Your task to perform on an android device: clear all cookies in the chrome app Image 0: 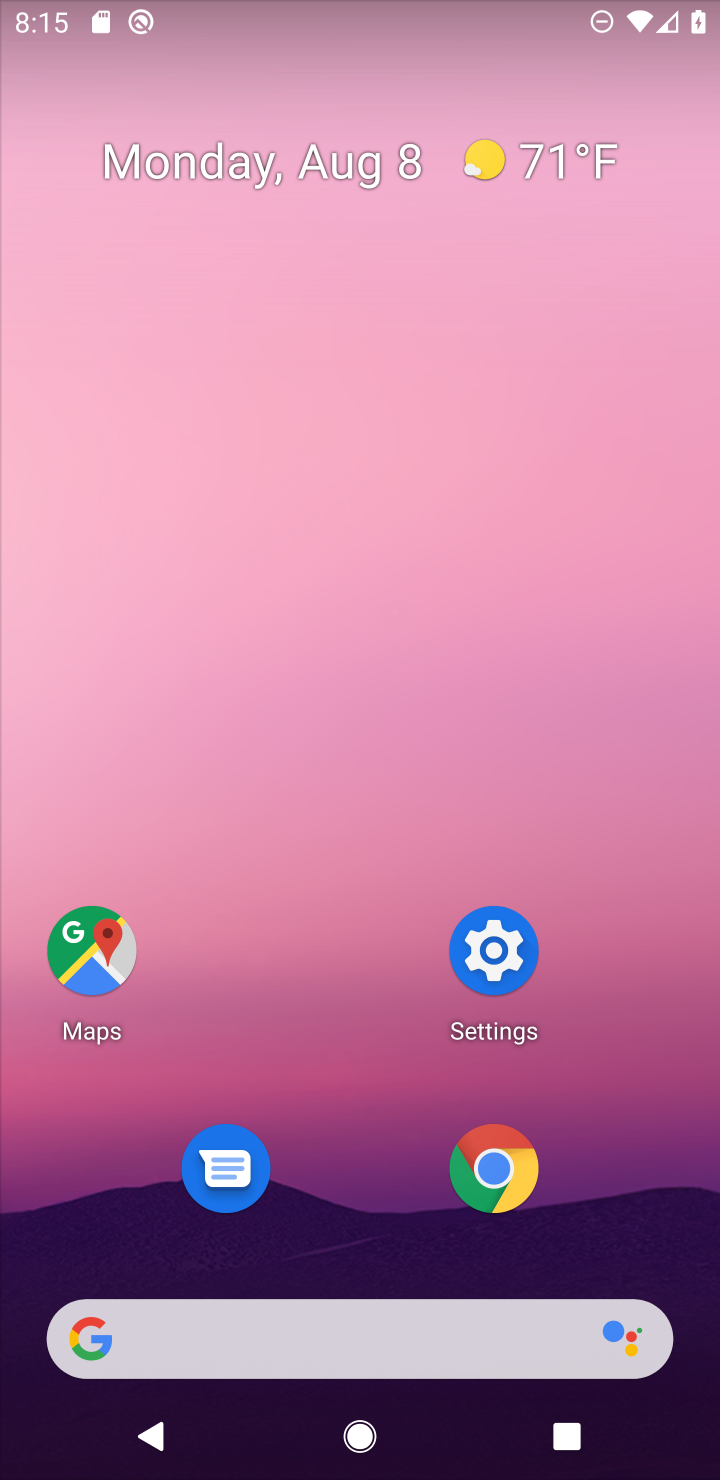
Step 0: press home button
Your task to perform on an android device: clear all cookies in the chrome app Image 1: 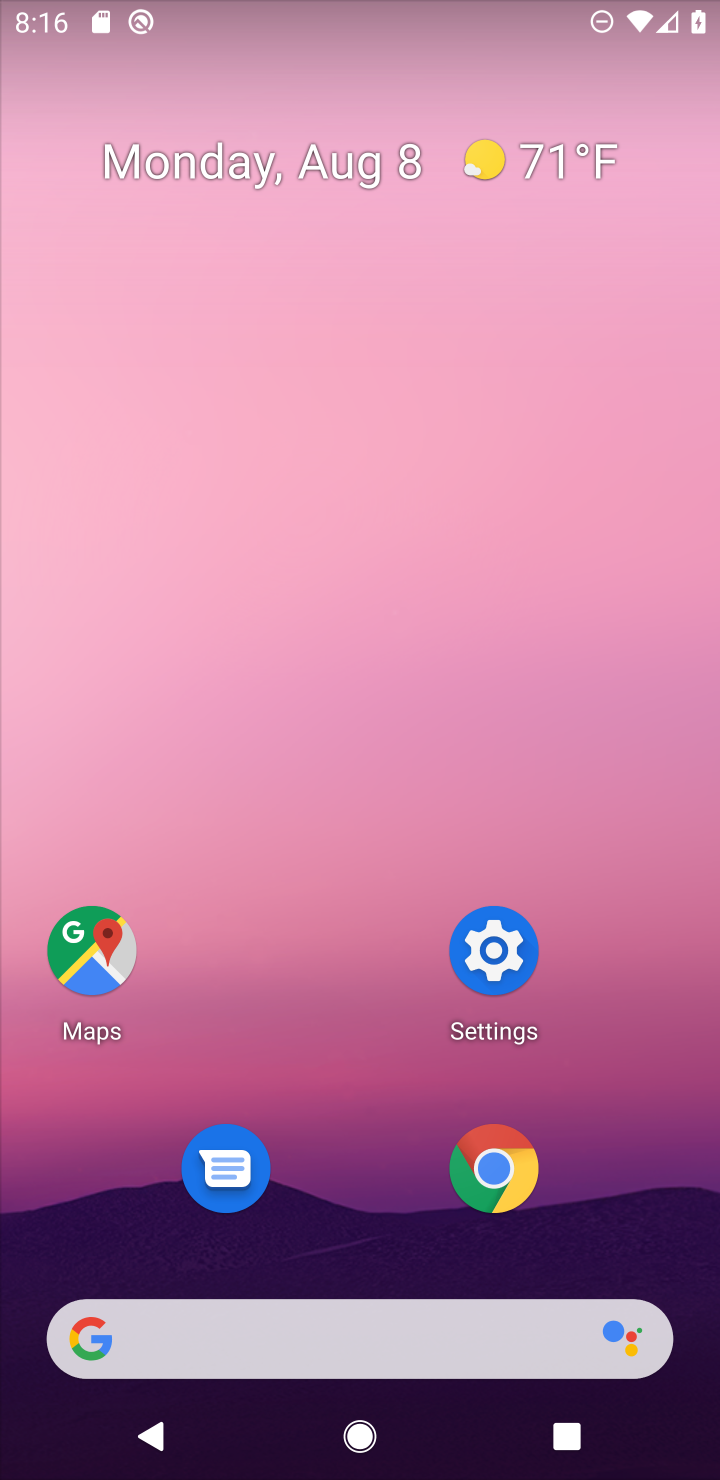
Step 1: click (494, 1193)
Your task to perform on an android device: clear all cookies in the chrome app Image 2: 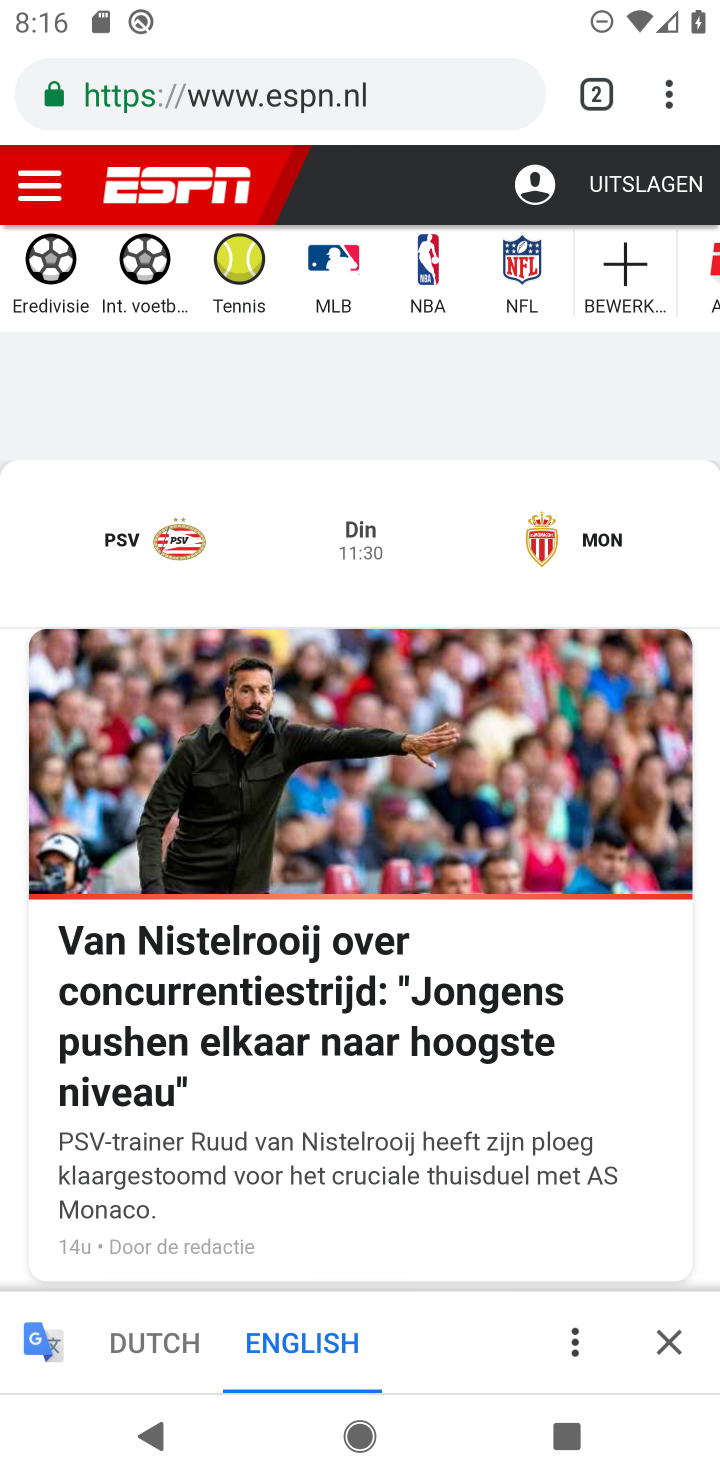
Step 2: drag from (665, 92) to (404, 1055)
Your task to perform on an android device: clear all cookies in the chrome app Image 3: 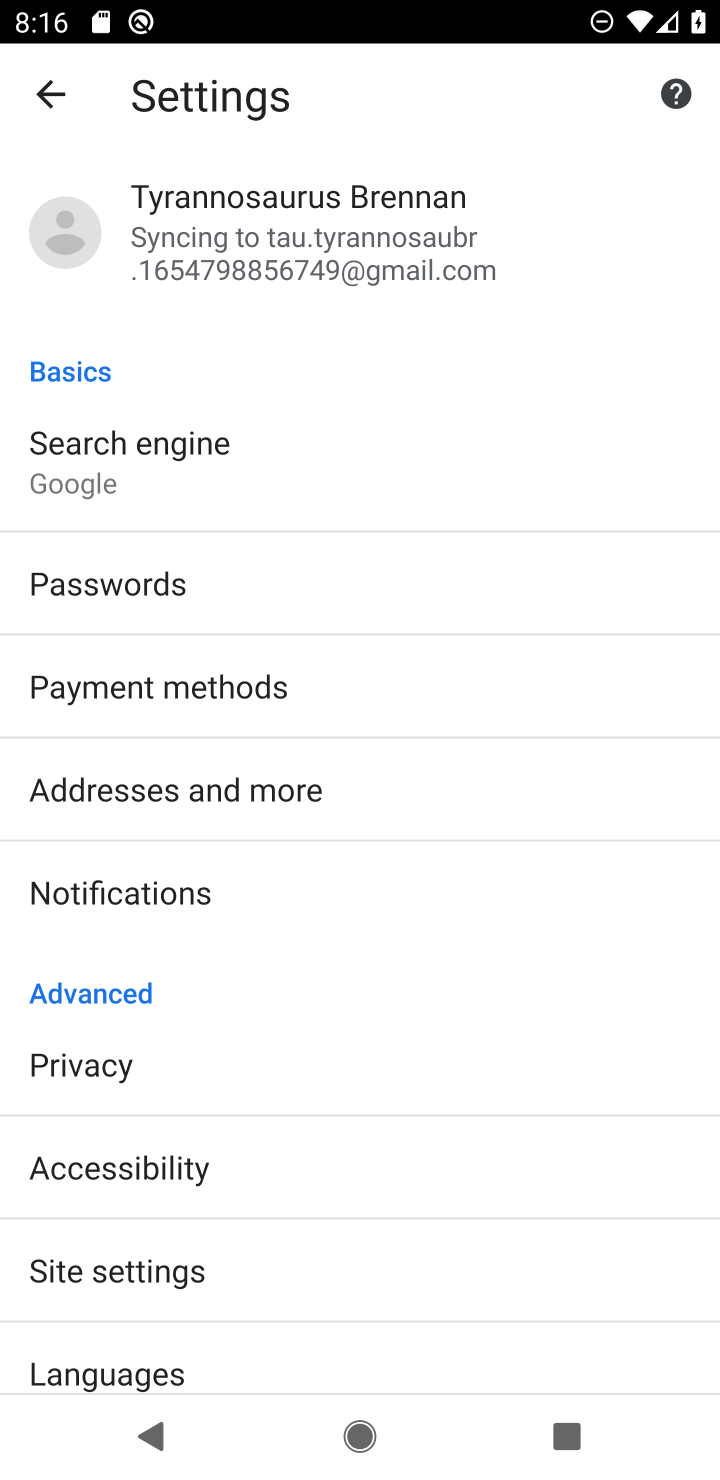
Step 3: click (79, 1049)
Your task to perform on an android device: clear all cookies in the chrome app Image 4: 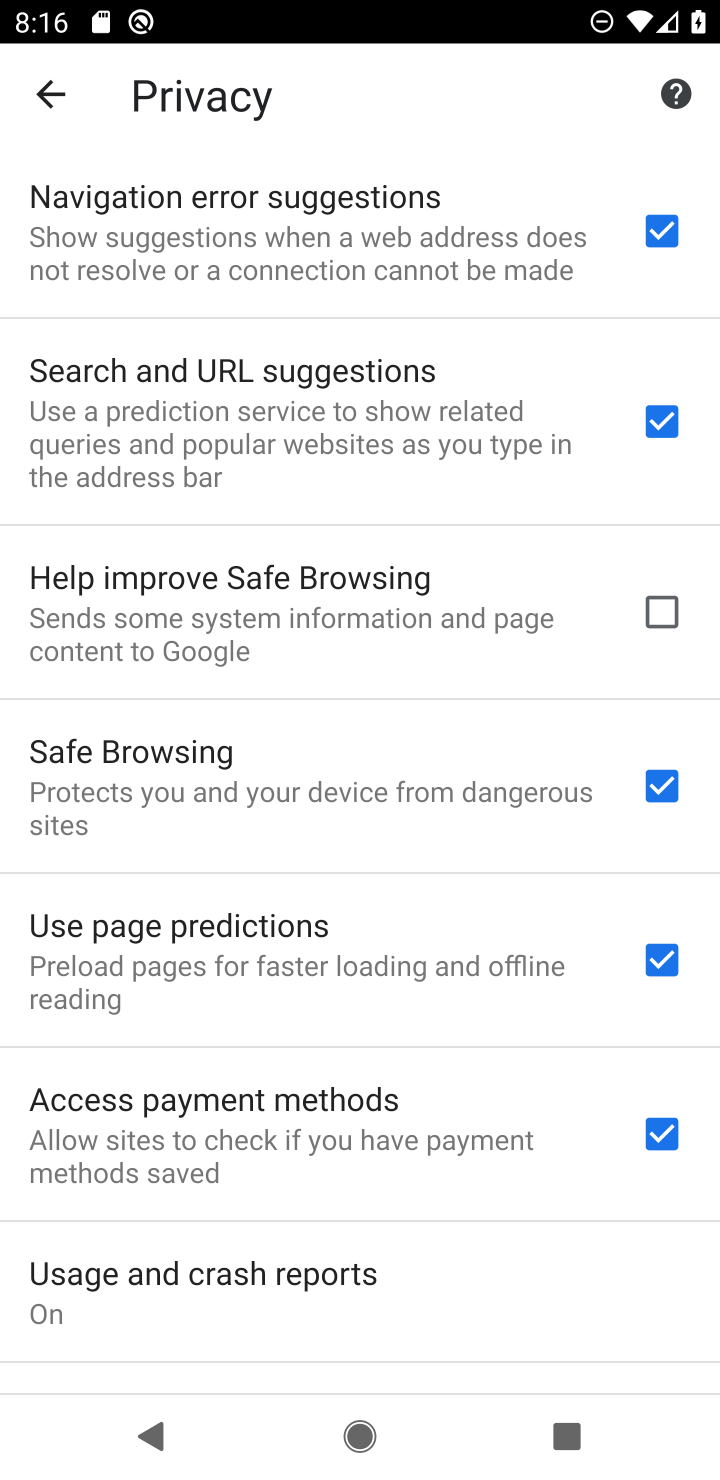
Step 4: drag from (262, 1289) to (551, 320)
Your task to perform on an android device: clear all cookies in the chrome app Image 5: 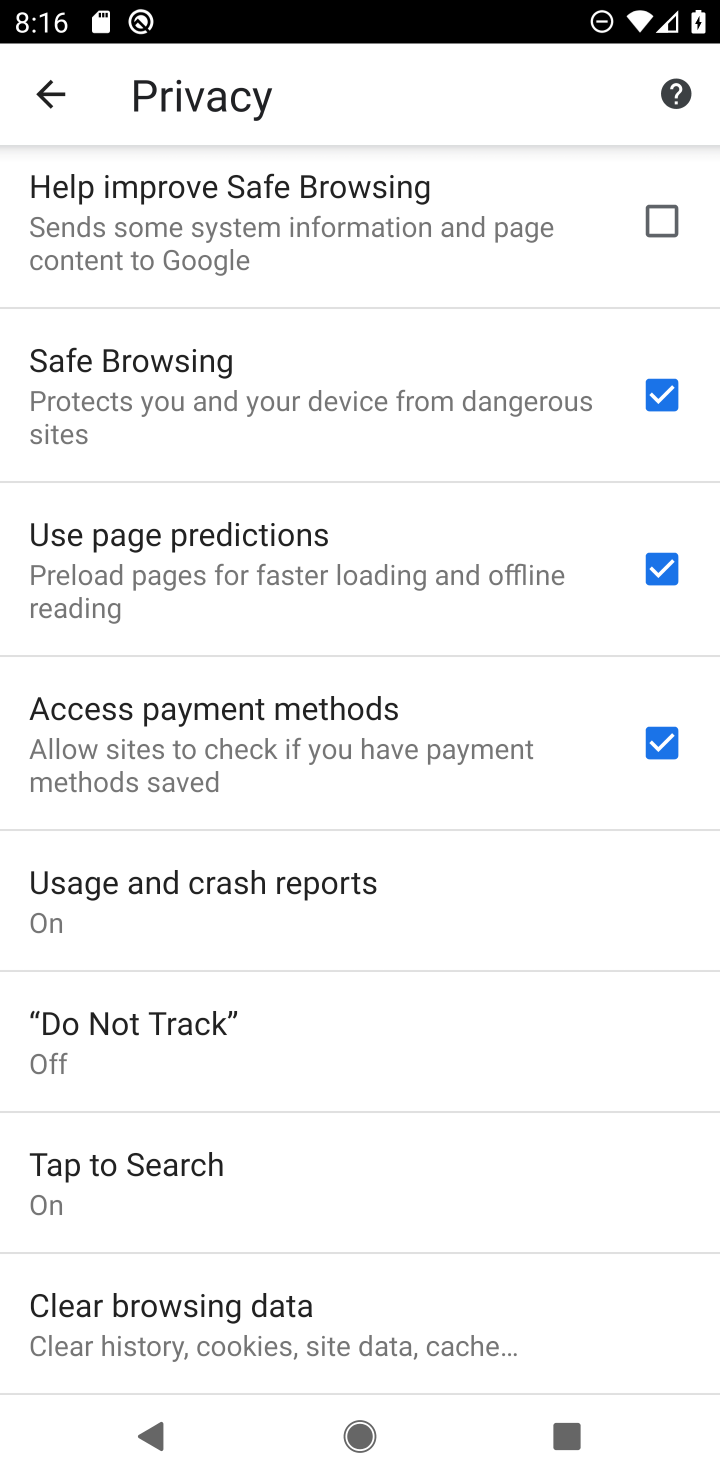
Step 5: click (271, 1308)
Your task to perform on an android device: clear all cookies in the chrome app Image 6: 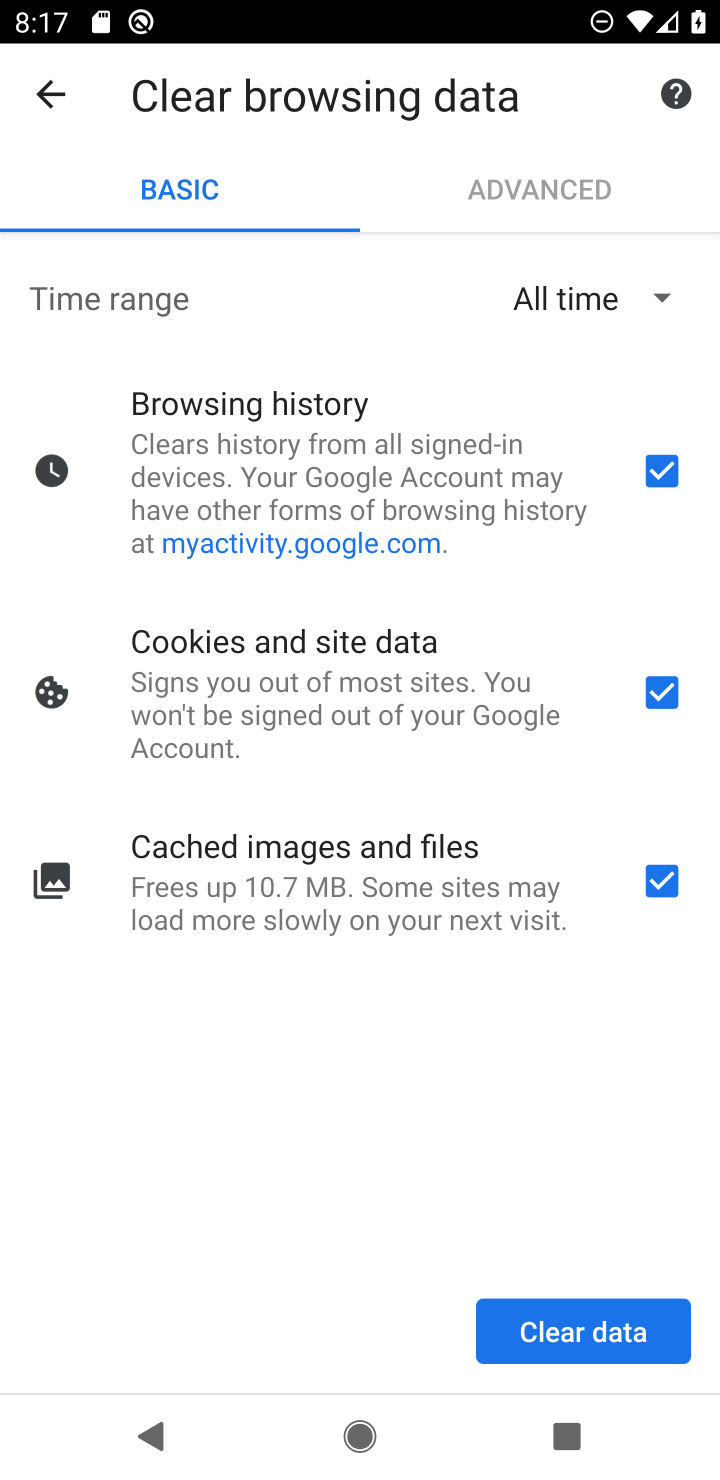
Step 6: click (654, 461)
Your task to perform on an android device: clear all cookies in the chrome app Image 7: 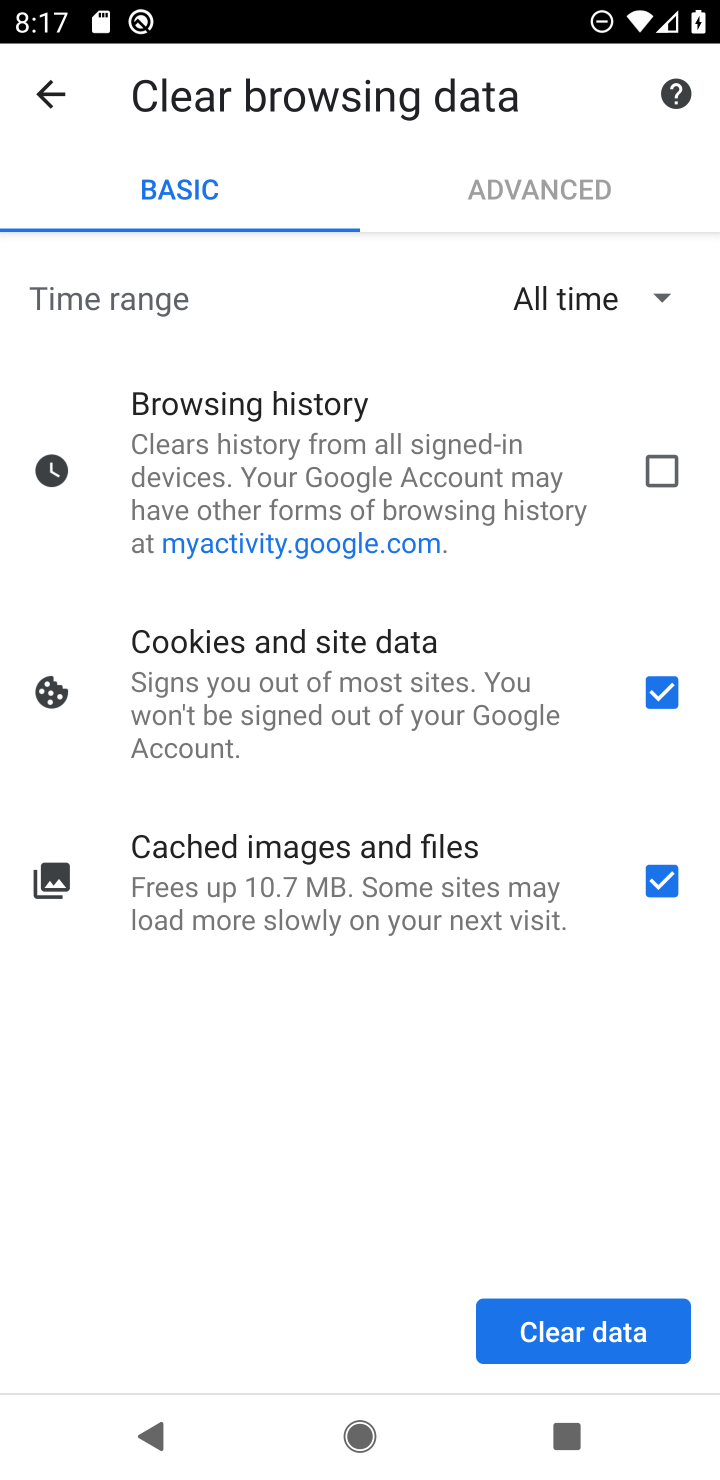
Step 7: click (660, 882)
Your task to perform on an android device: clear all cookies in the chrome app Image 8: 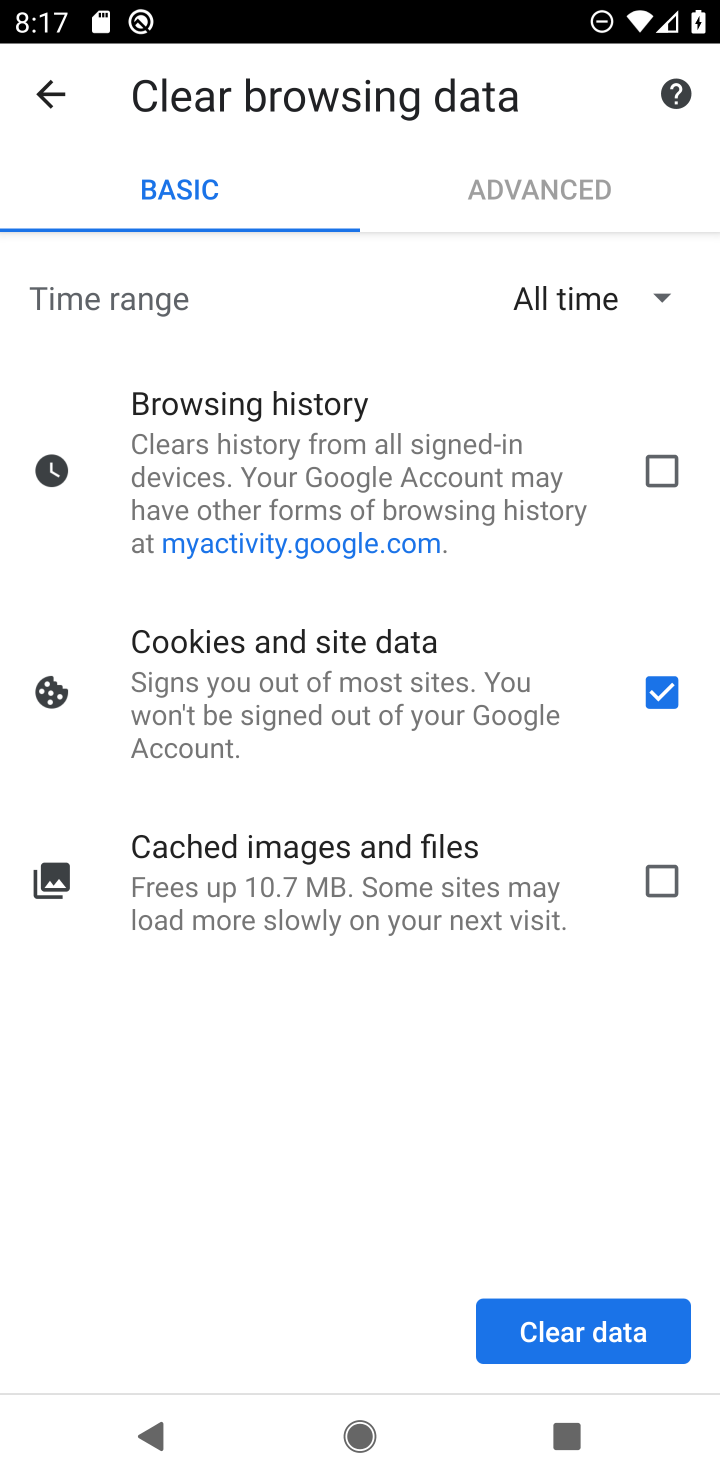
Step 8: click (582, 1327)
Your task to perform on an android device: clear all cookies in the chrome app Image 9: 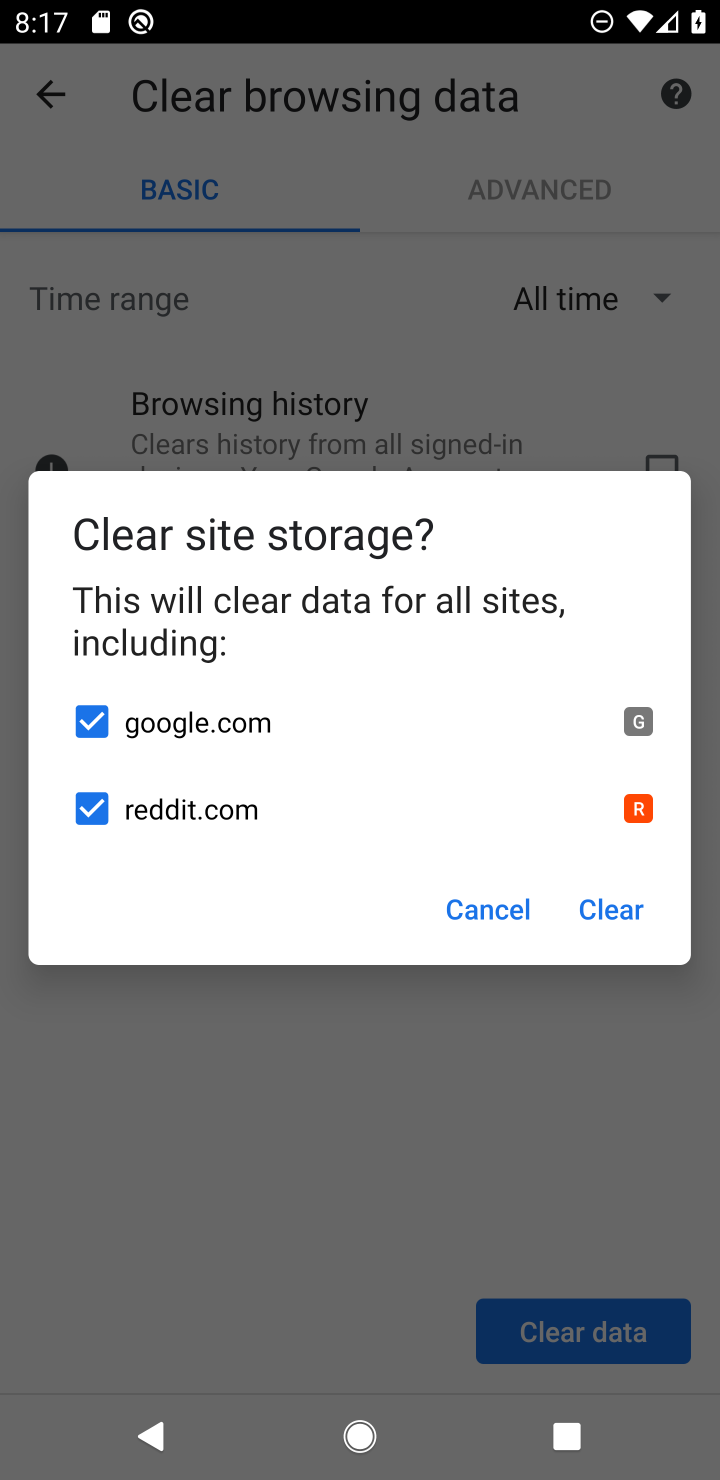
Step 9: click (611, 899)
Your task to perform on an android device: clear all cookies in the chrome app Image 10: 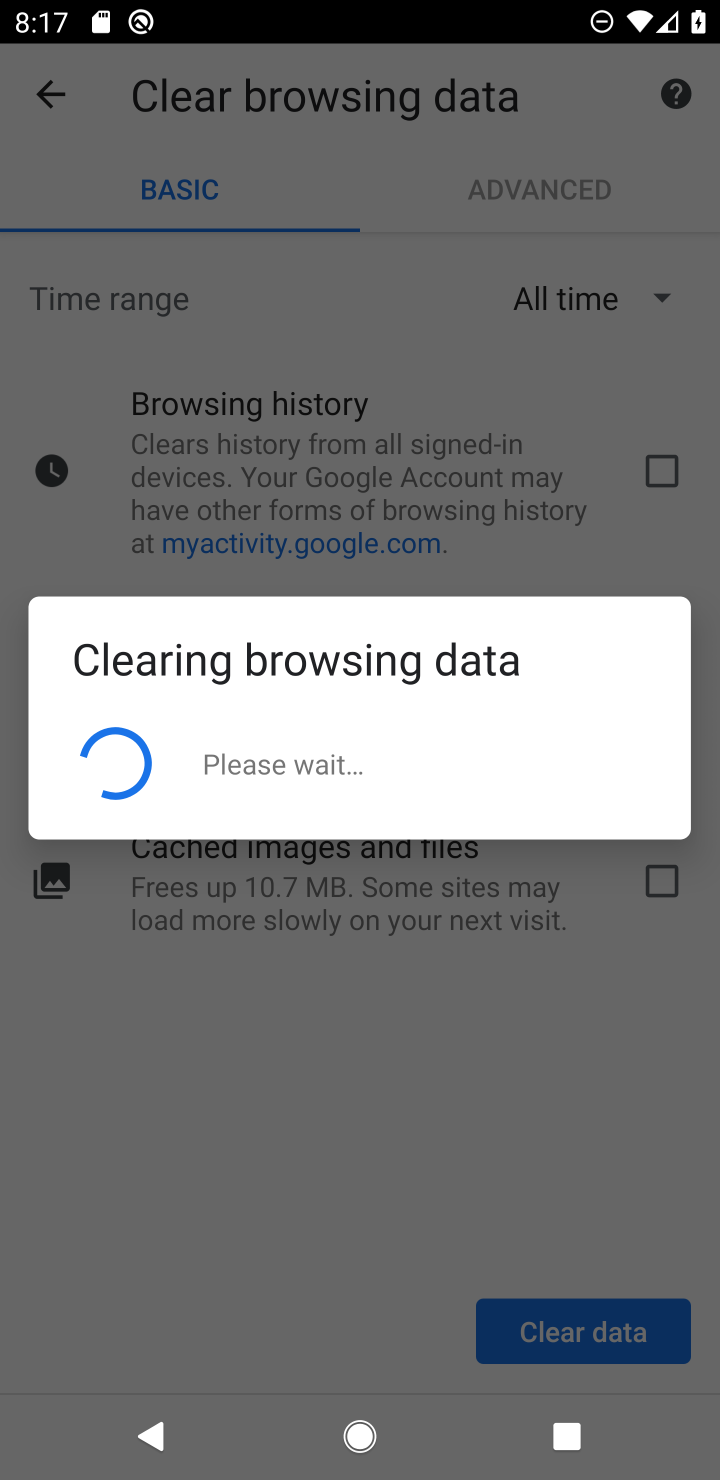
Step 10: task complete